Your task to perform on an android device: turn on the 12-hour format for clock Image 0: 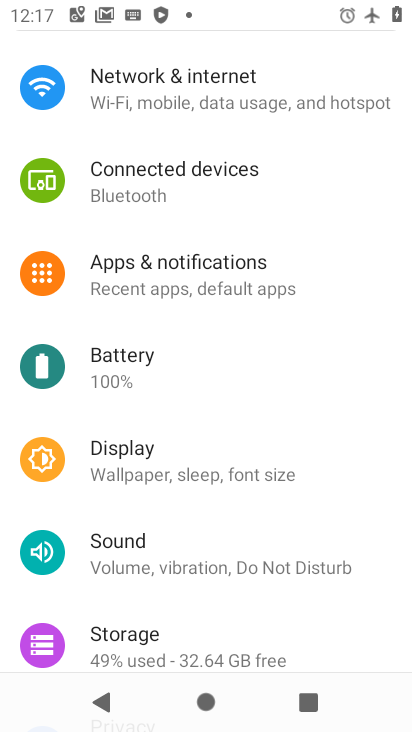
Step 0: press home button
Your task to perform on an android device: turn on the 12-hour format for clock Image 1: 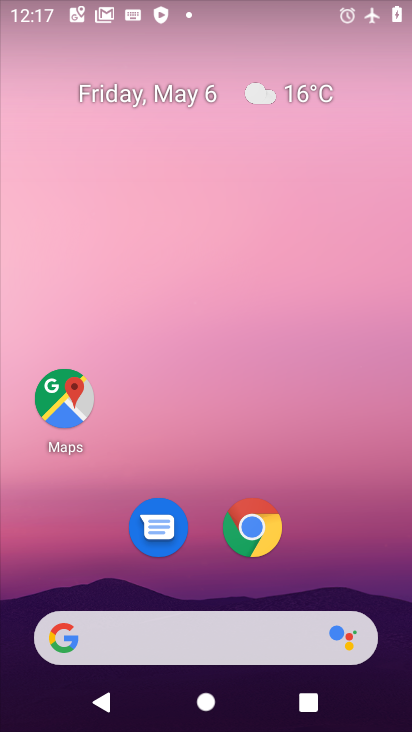
Step 1: drag from (273, 396) to (100, 64)
Your task to perform on an android device: turn on the 12-hour format for clock Image 2: 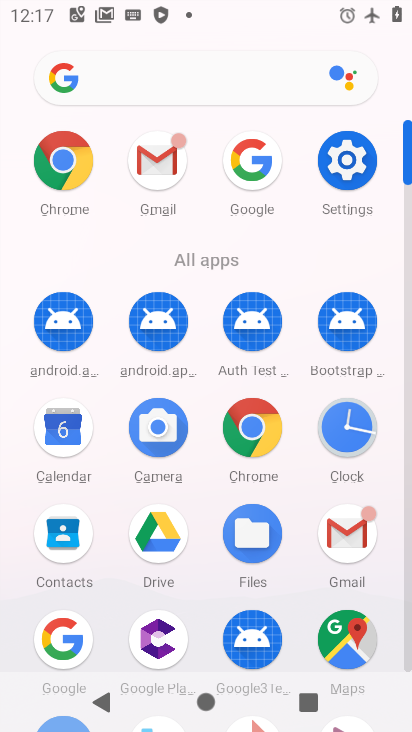
Step 2: click (341, 431)
Your task to perform on an android device: turn on the 12-hour format for clock Image 3: 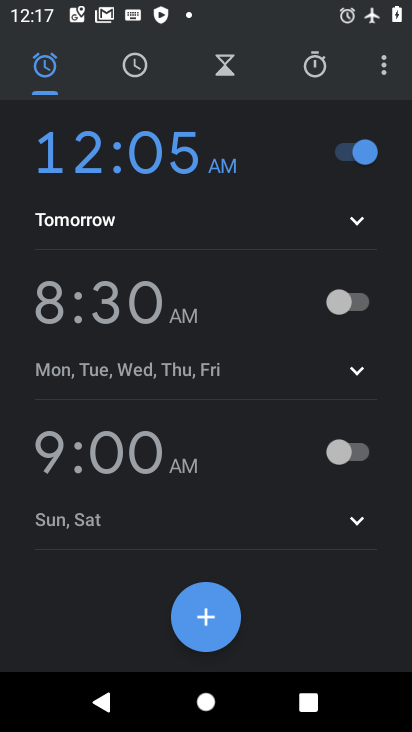
Step 3: click (386, 65)
Your task to perform on an android device: turn on the 12-hour format for clock Image 4: 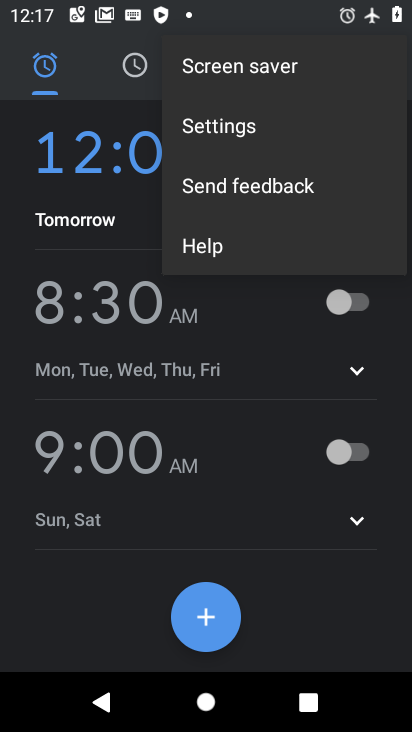
Step 4: click (197, 123)
Your task to perform on an android device: turn on the 12-hour format for clock Image 5: 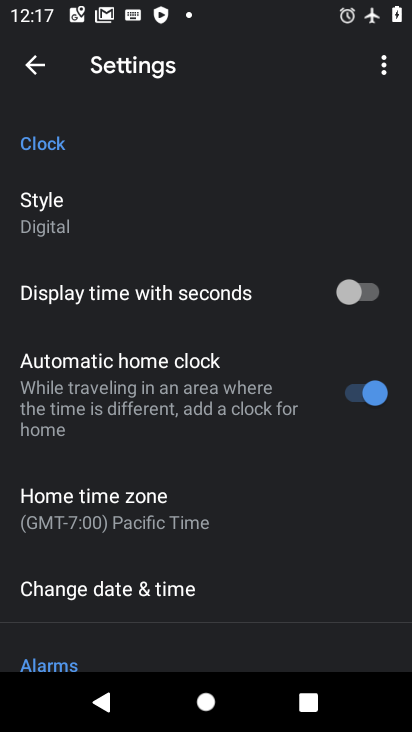
Step 5: click (124, 578)
Your task to perform on an android device: turn on the 12-hour format for clock Image 6: 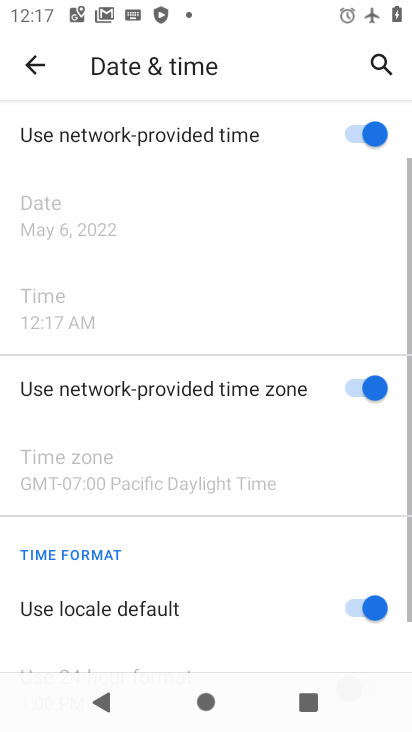
Step 6: task complete